Your task to perform on an android device: Open Youtube and go to "Your channel" Image 0: 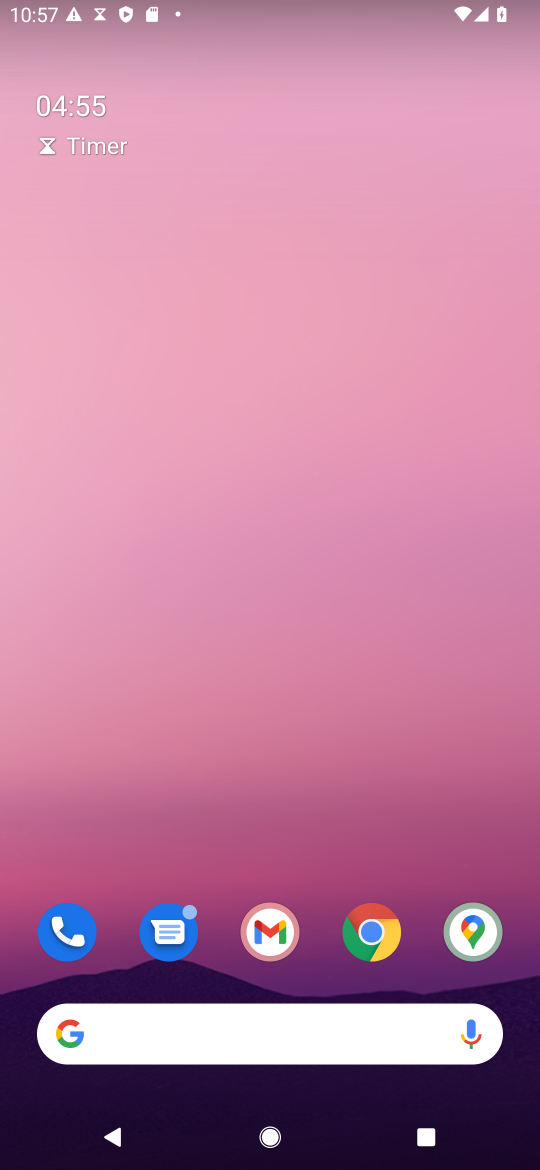
Step 0: drag from (214, 975) to (293, 160)
Your task to perform on an android device: Open Youtube and go to "Your channel" Image 1: 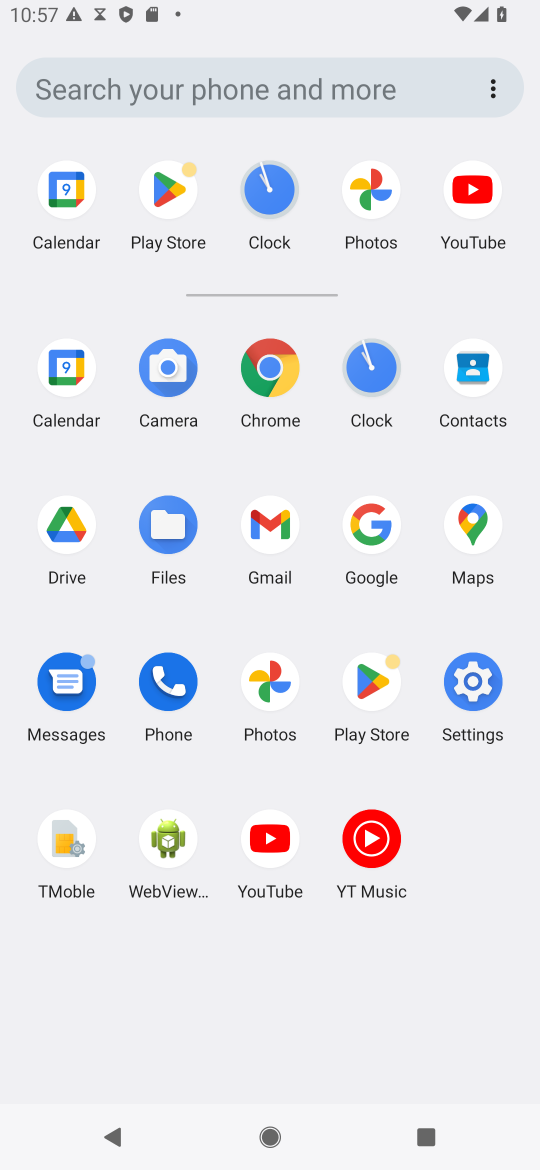
Step 1: click (265, 861)
Your task to perform on an android device: Open Youtube and go to "Your channel" Image 2: 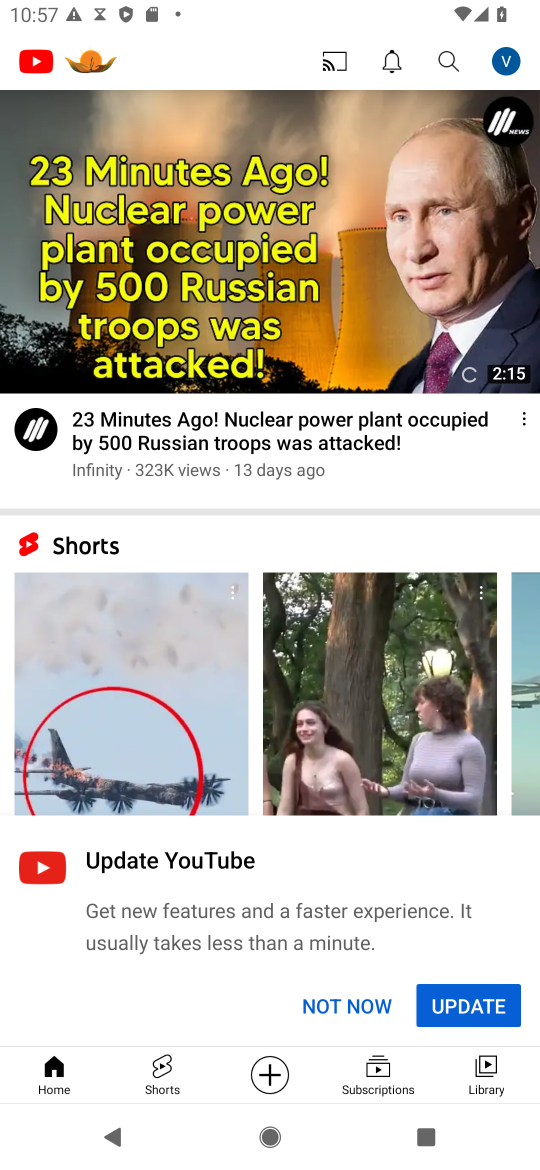
Step 2: click (512, 68)
Your task to perform on an android device: Open Youtube and go to "Your channel" Image 3: 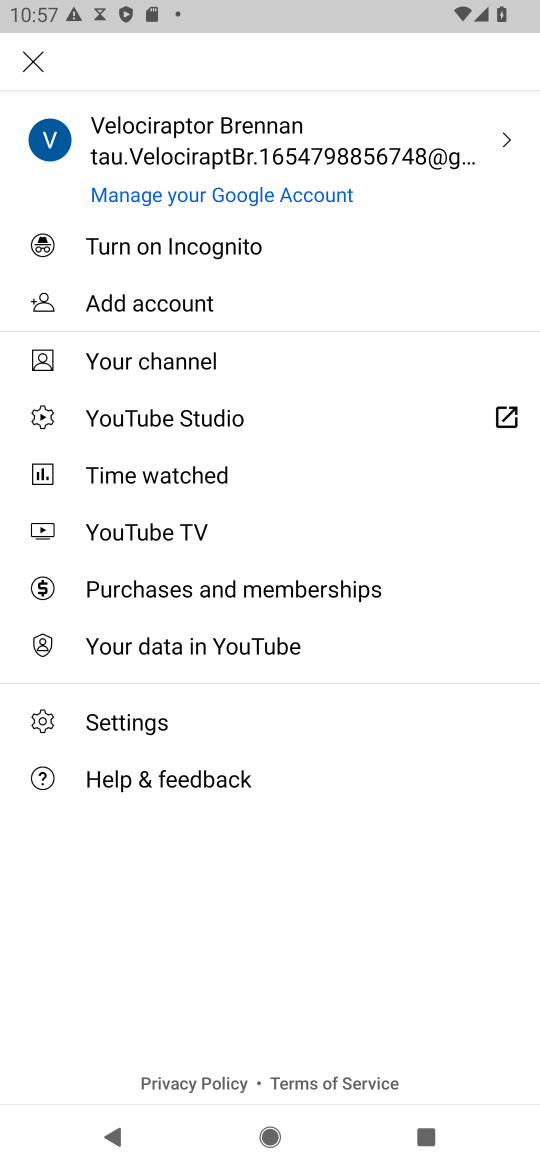
Step 3: click (190, 362)
Your task to perform on an android device: Open Youtube and go to "Your channel" Image 4: 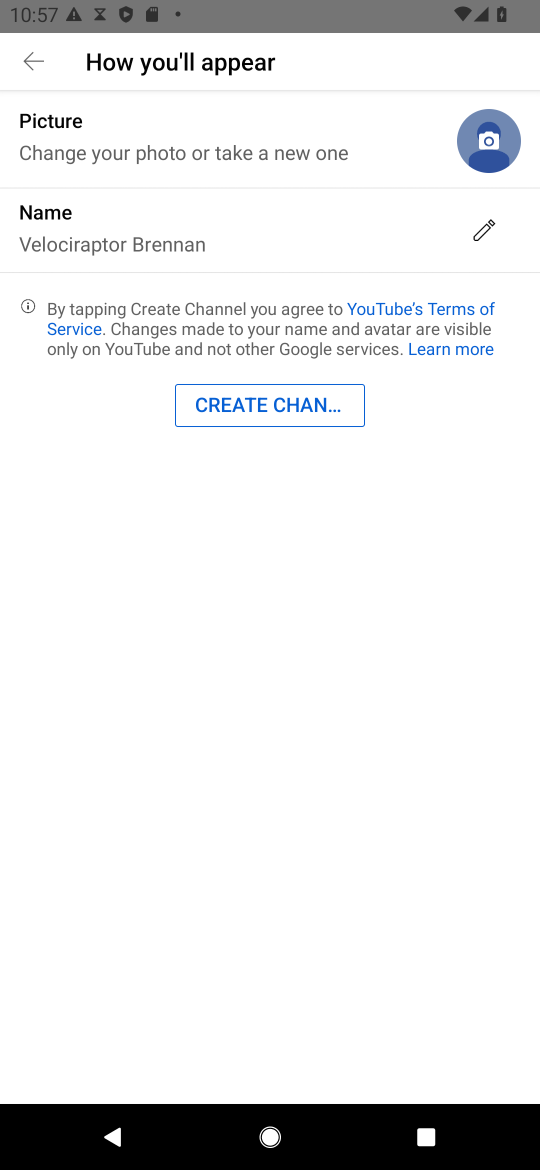
Step 4: task complete